Your task to perform on an android device: turn on airplane mode Image 0: 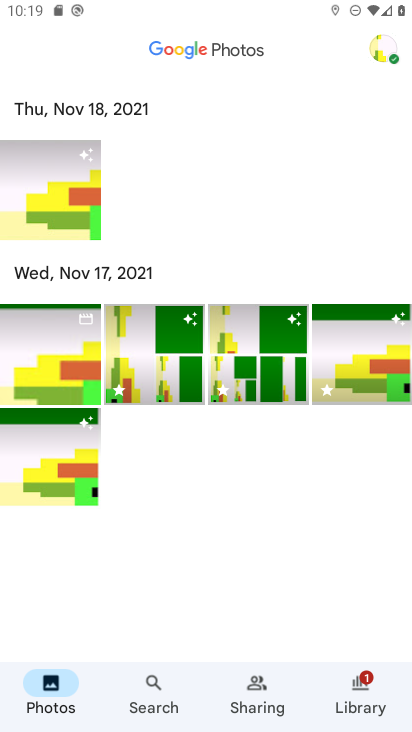
Step 0: press home button
Your task to perform on an android device: turn on airplane mode Image 1: 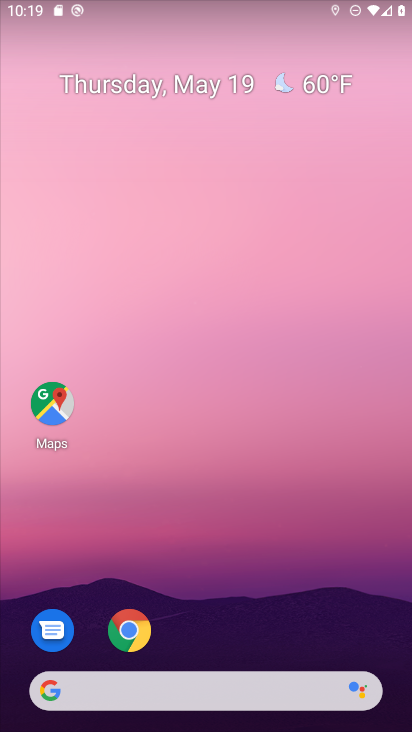
Step 1: drag from (213, 463) to (166, 126)
Your task to perform on an android device: turn on airplane mode Image 2: 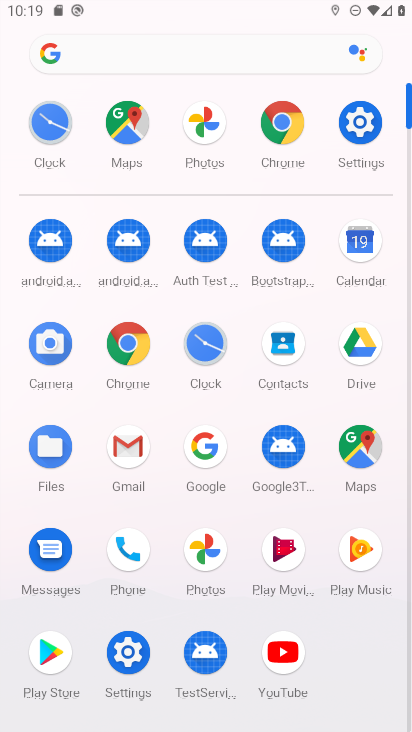
Step 2: click (363, 121)
Your task to perform on an android device: turn on airplane mode Image 3: 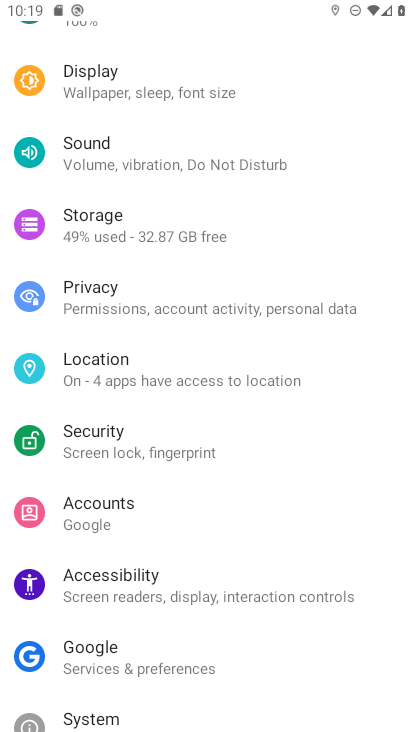
Step 3: drag from (223, 122) to (181, 551)
Your task to perform on an android device: turn on airplane mode Image 4: 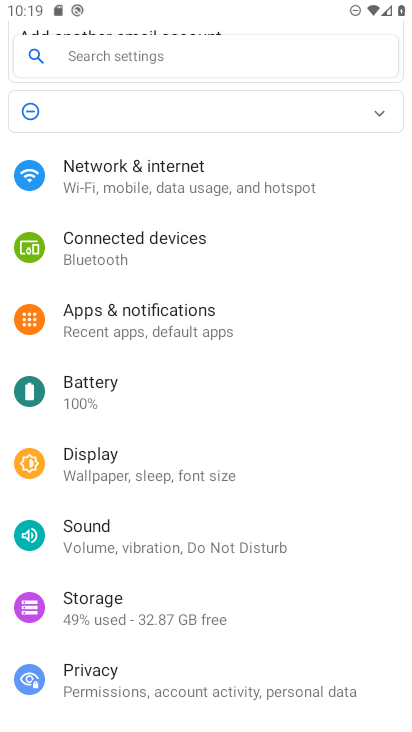
Step 4: click (172, 168)
Your task to perform on an android device: turn on airplane mode Image 5: 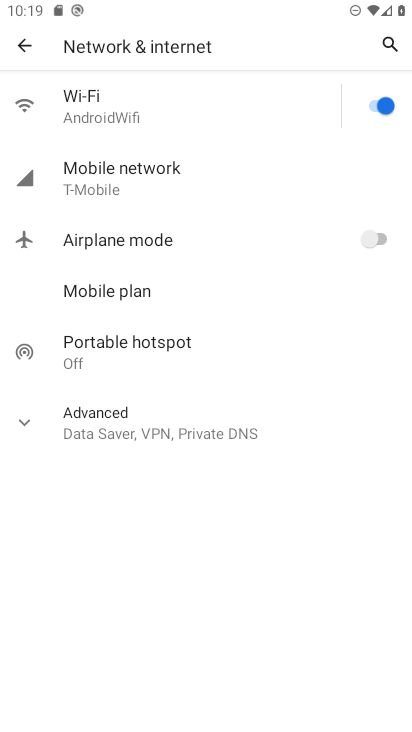
Step 5: click (375, 237)
Your task to perform on an android device: turn on airplane mode Image 6: 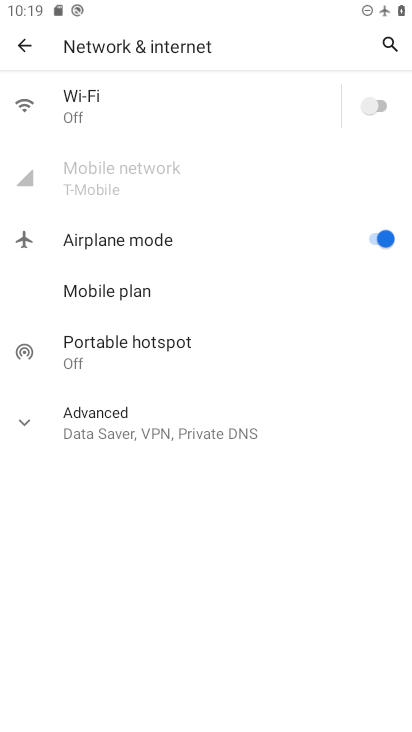
Step 6: task complete